Your task to perform on an android device: What is the recent news? Image 0: 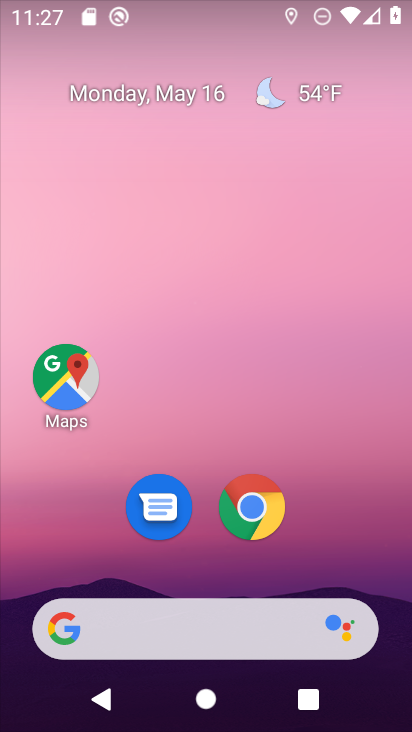
Step 0: click (264, 514)
Your task to perform on an android device: What is the recent news? Image 1: 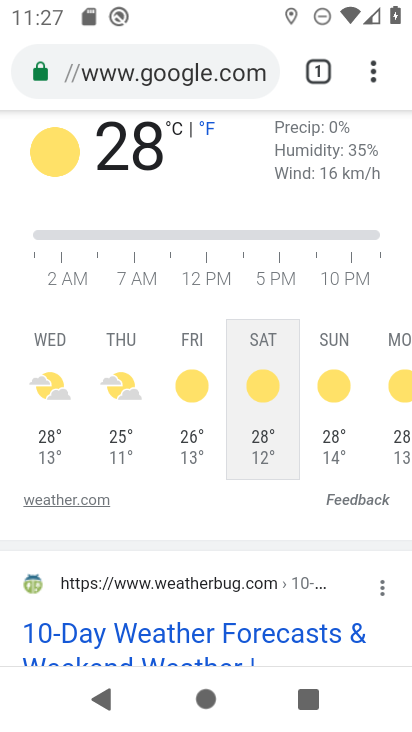
Step 1: click (222, 92)
Your task to perform on an android device: What is the recent news? Image 2: 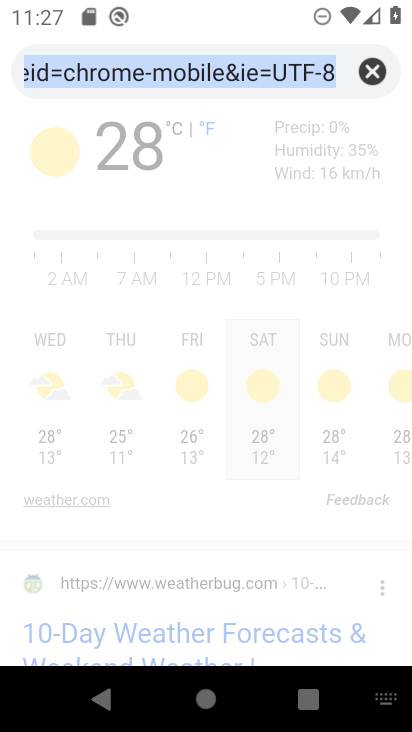
Step 2: type "What is the recent news?"
Your task to perform on an android device: What is the recent news? Image 3: 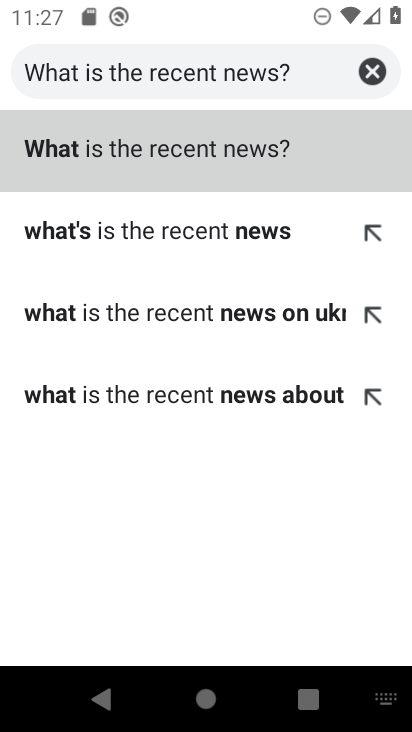
Step 3: click (260, 147)
Your task to perform on an android device: What is the recent news? Image 4: 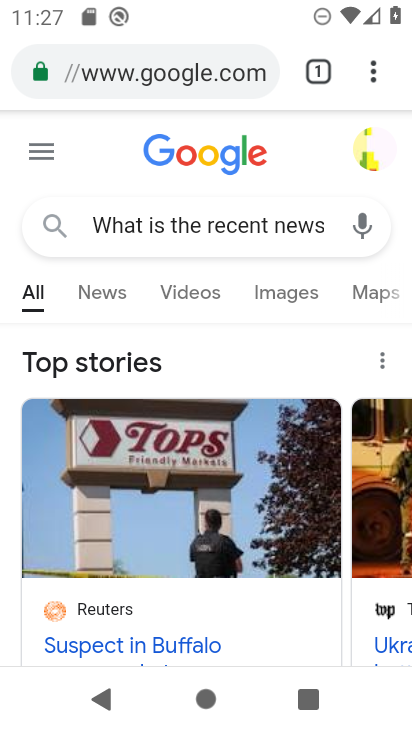
Step 4: task complete